Your task to perform on an android device: Open battery settings Image 0: 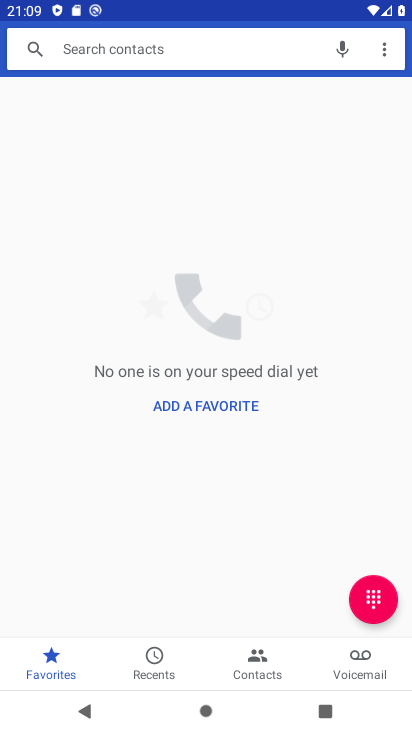
Step 0: press home button
Your task to perform on an android device: Open battery settings Image 1: 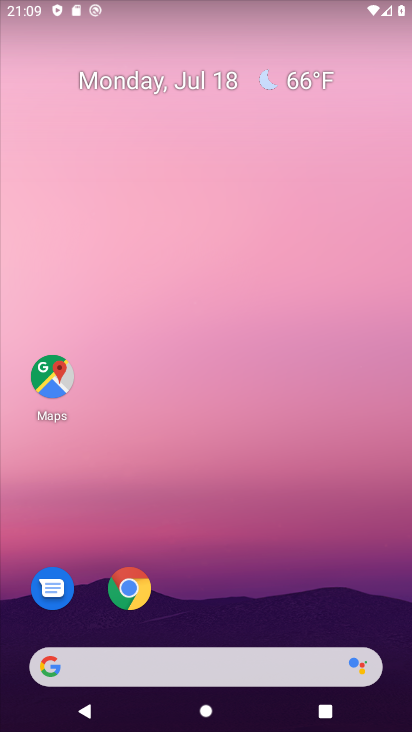
Step 1: drag from (179, 665) to (317, 133)
Your task to perform on an android device: Open battery settings Image 2: 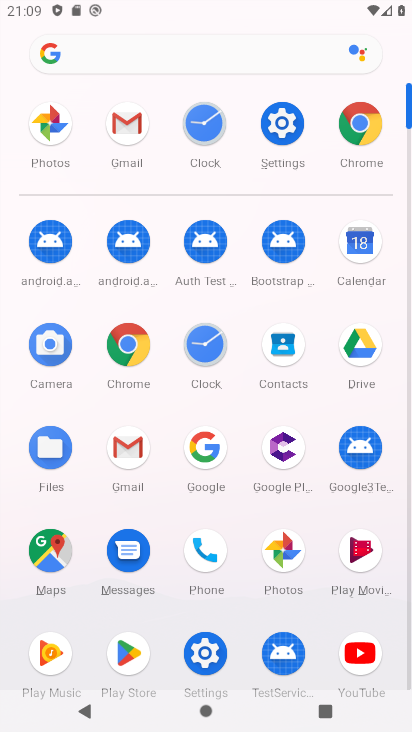
Step 2: click (293, 128)
Your task to perform on an android device: Open battery settings Image 3: 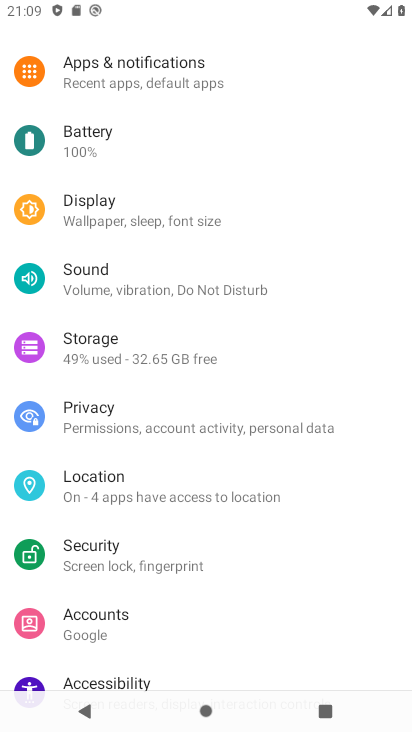
Step 3: click (91, 140)
Your task to perform on an android device: Open battery settings Image 4: 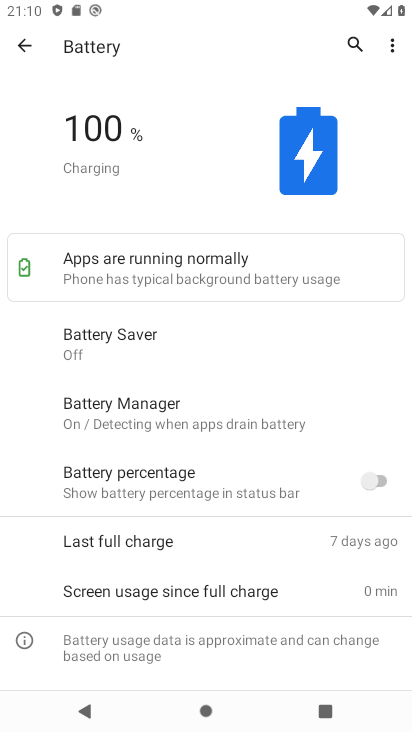
Step 4: task complete